Your task to perform on an android device: Add usb-c to the cart on ebay.com, then select checkout. Image 0: 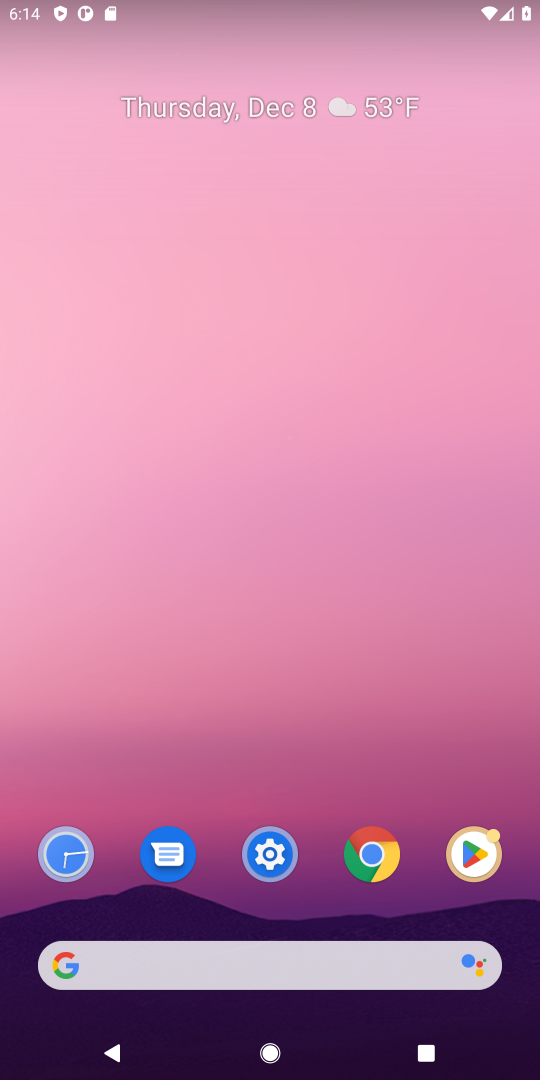
Step 0: press home button
Your task to perform on an android device: Add usb-c to the cart on ebay.com, then select checkout. Image 1: 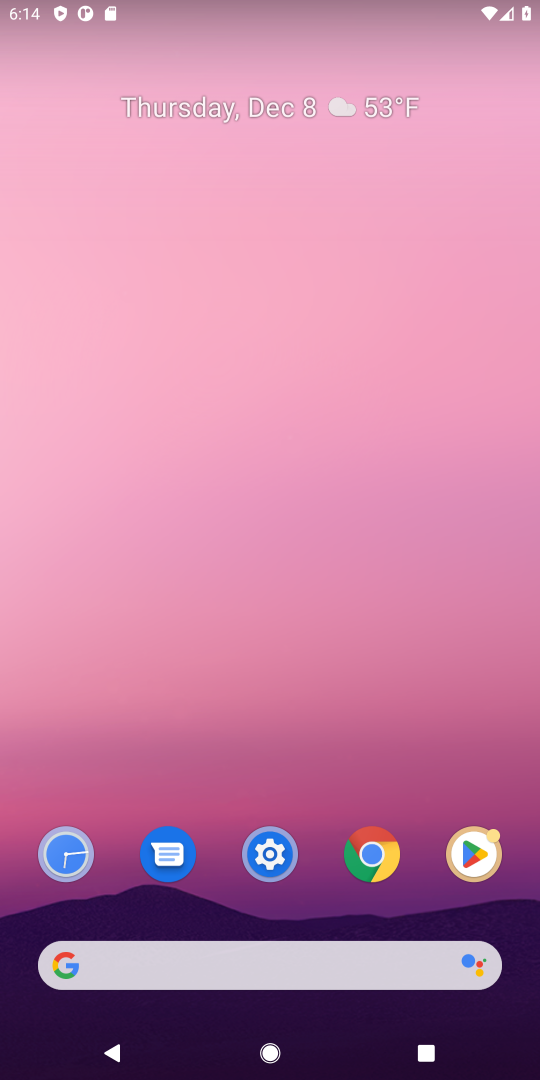
Step 1: click (123, 977)
Your task to perform on an android device: Add usb-c to the cart on ebay.com, then select checkout. Image 2: 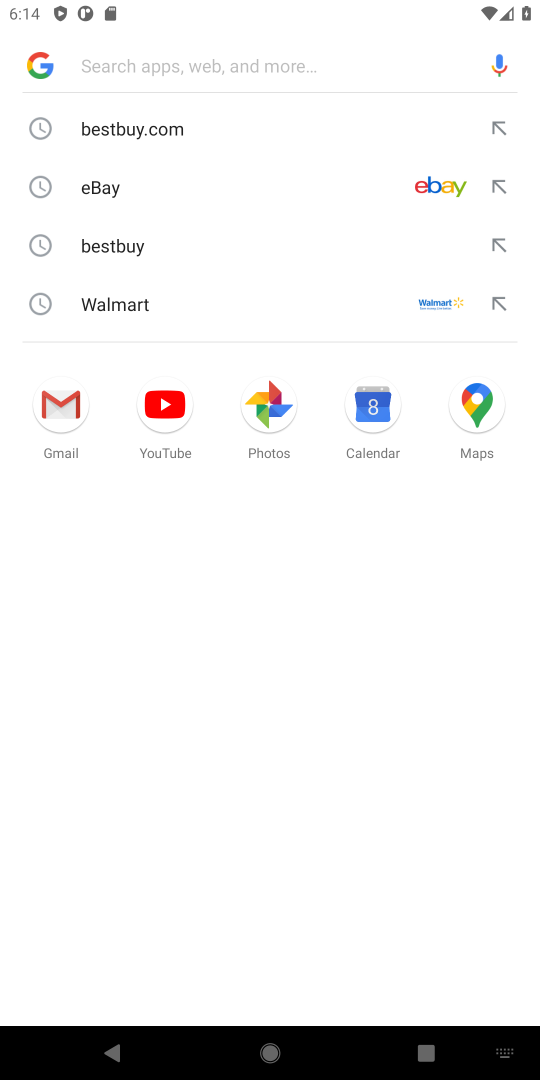
Step 2: press enter
Your task to perform on an android device: Add usb-c to the cart on ebay.com, then select checkout. Image 3: 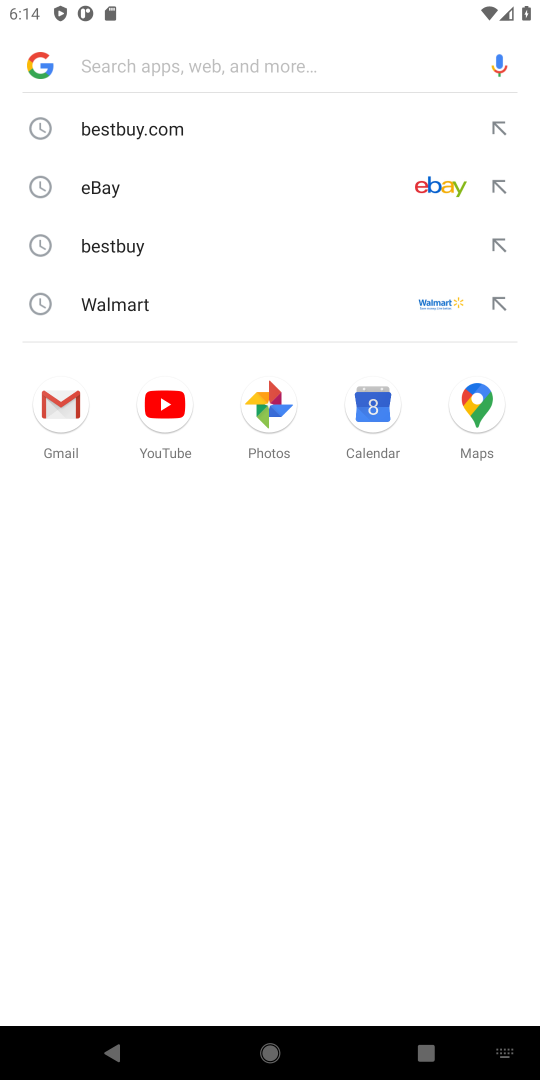
Step 3: type "ebay.com"
Your task to perform on an android device: Add usb-c to the cart on ebay.com, then select checkout. Image 4: 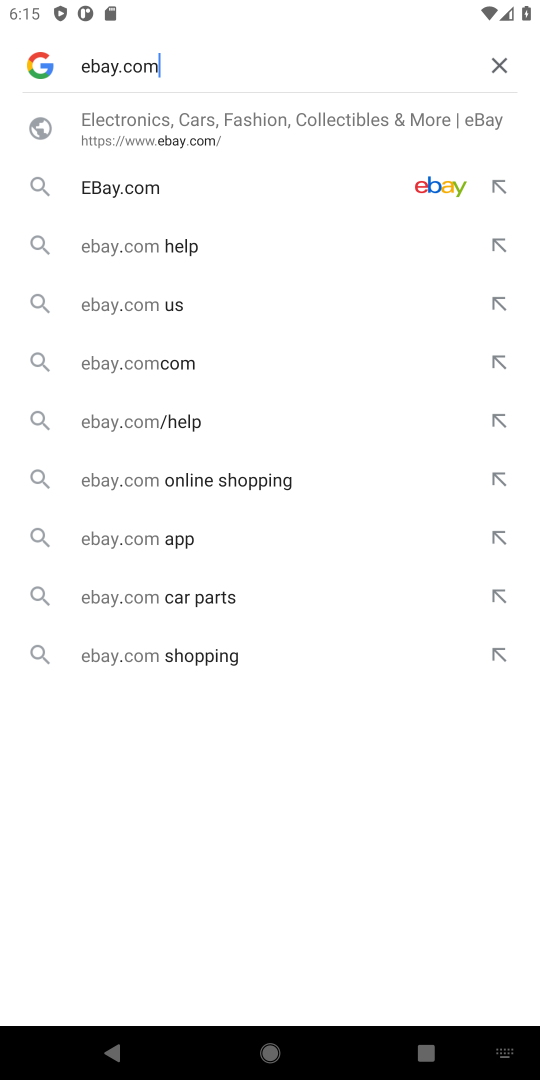
Step 4: press enter
Your task to perform on an android device: Add usb-c to the cart on ebay.com, then select checkout. Image 5: 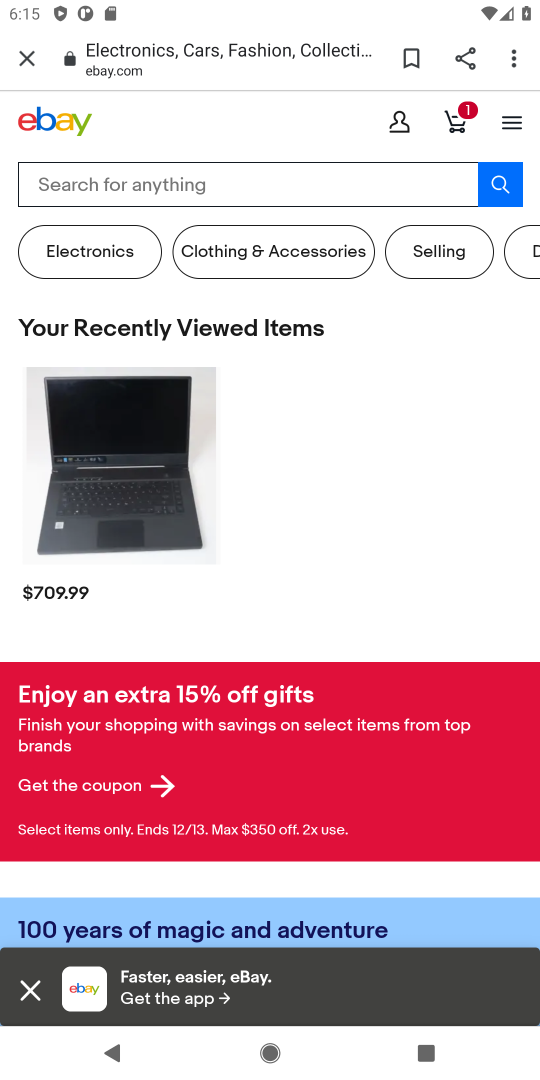
Step 5: click (237, 178)
Your task to perform on an android device: Add usb-c to the cart on ebay.com, then select checkout. Image 6: 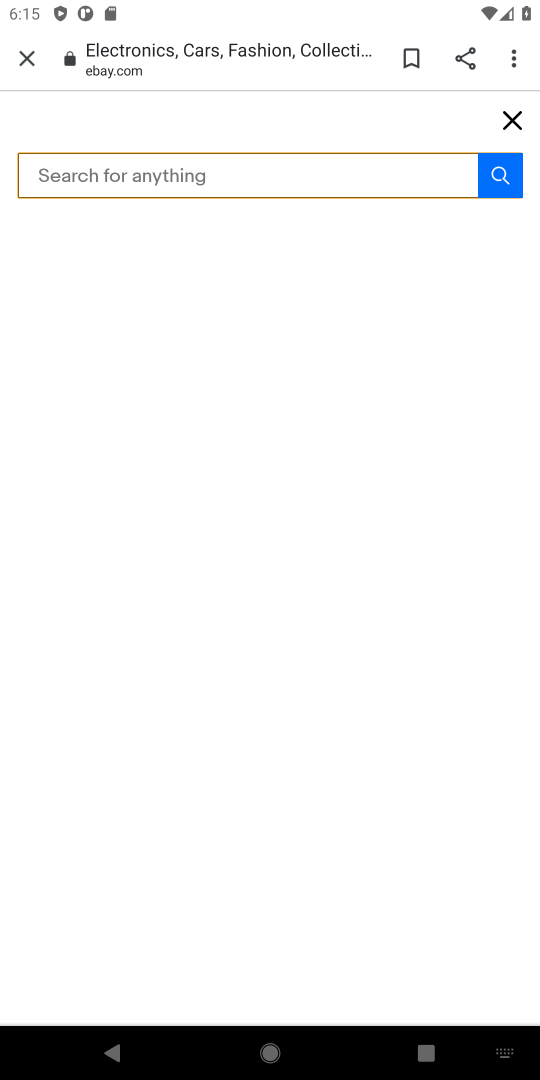
Step 6: type "usb-c"
Your task to perform on an android device: Add usb-c to the cart on ebay.com, then select checkout. Image 7: 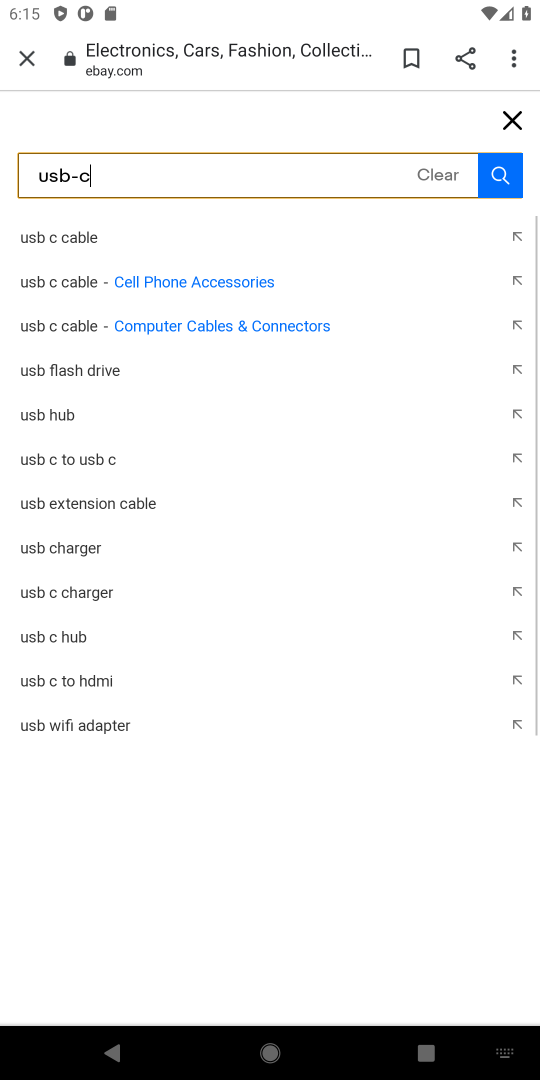
Step 7: press enter
Your task to perform on an android device: Add usb-c to the cart on ebay.com, then select checkout. Image 8: 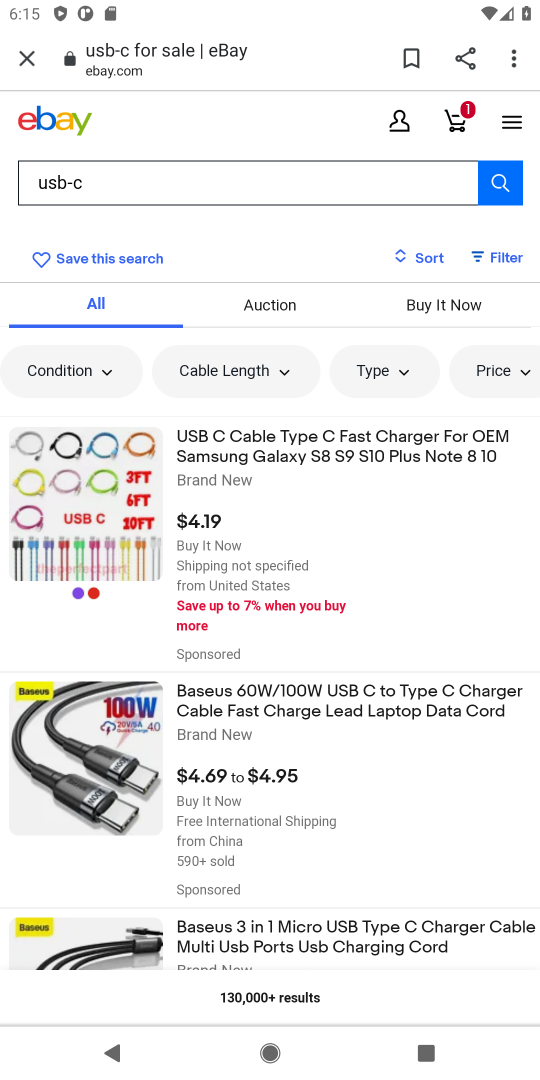
Step 8: click (244, 502)
Your task to perform on an android device: Add usb-c to the cart on ebay.com, then select checkout. Image 9: 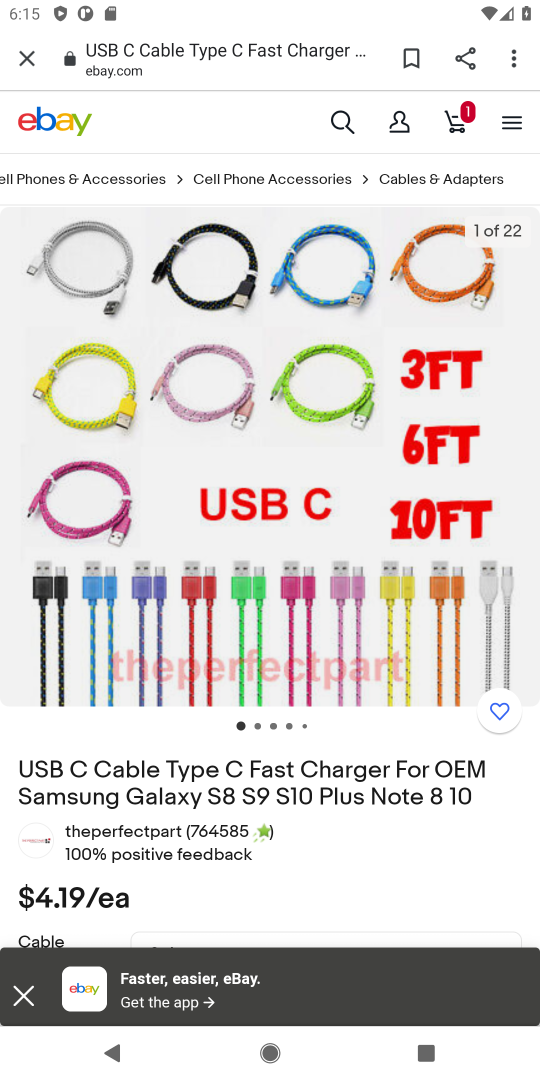
Step 9: drag from (343, 883) to (332, 385)
Your task to perform on an android device: Add usb-c to the cart on ebay.com, then select checkout. Image 10: 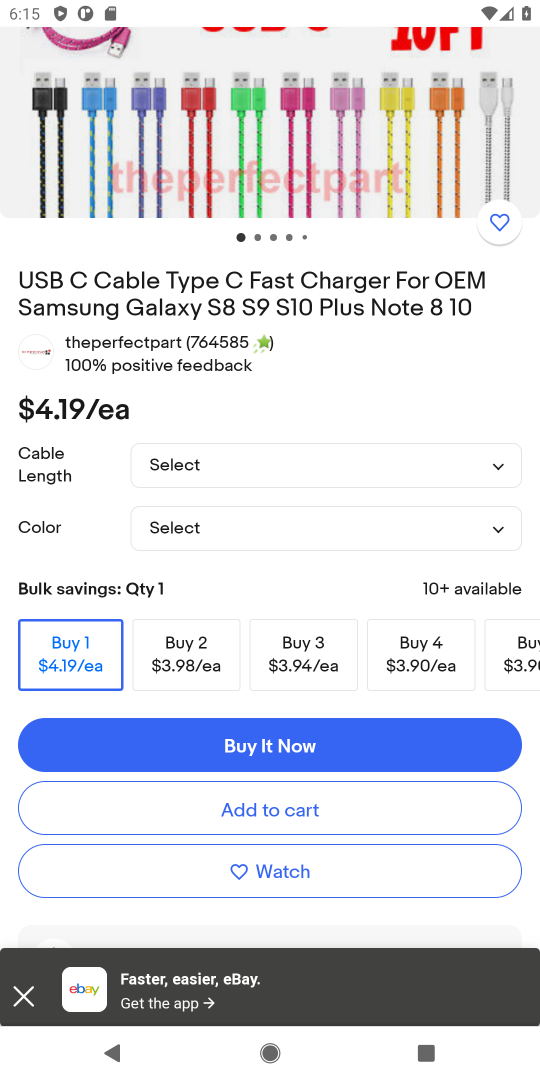
Step 10: click (269, 809)
Your task to perform on an android device: Add usb-c to the cart on ebay.com, then select checkout. Image 11: 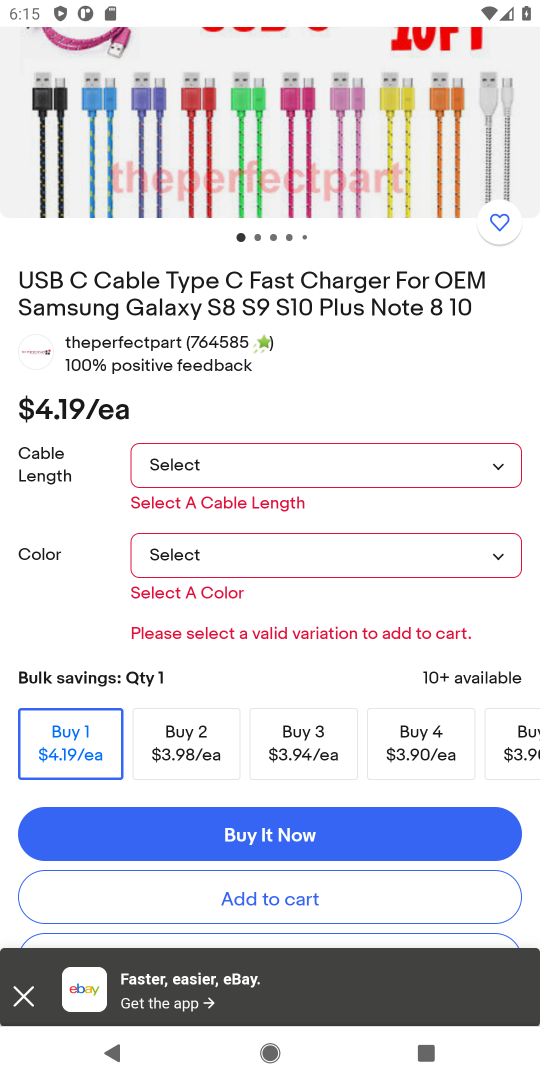
Step 11: click (499, 464)
Your task to perform on an android device: Add usb-c to the cart on ebay.com, then select checkout. Image 12: 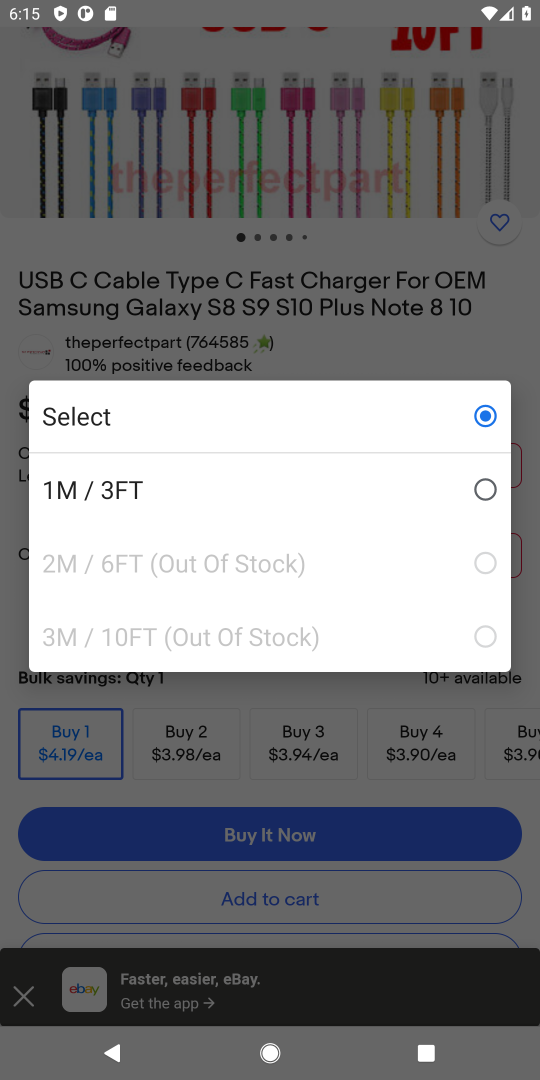
Step 12: click (482, 492)
Your task to perform on an android device: Add usb-c to the cart on ebay.com, then select checkout. Image 13: 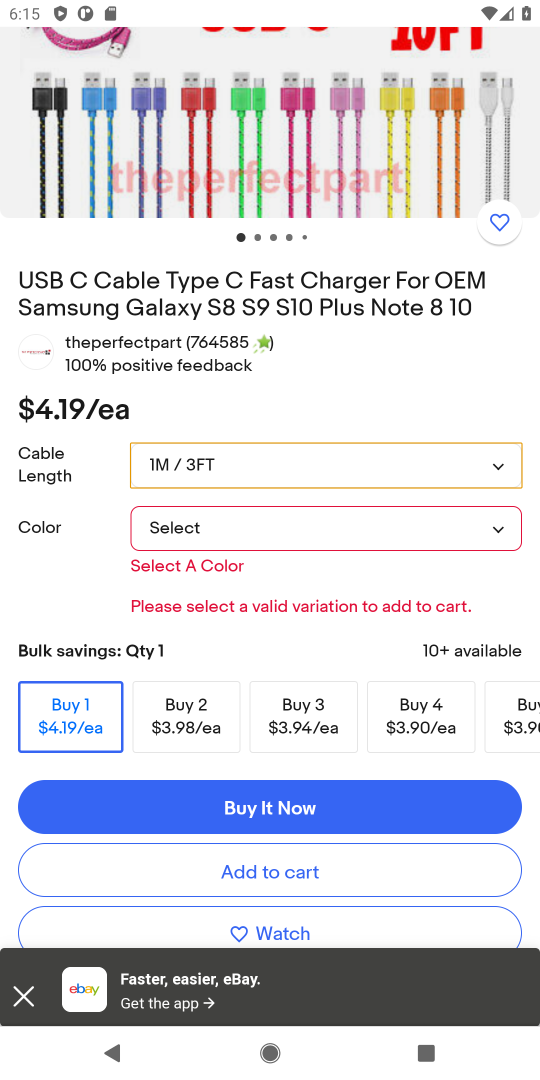
Step 13: click (498, 523)
Your task to perform on an android device: Add usb-c to the cart on ebay.com, then select checkout. Image 14: 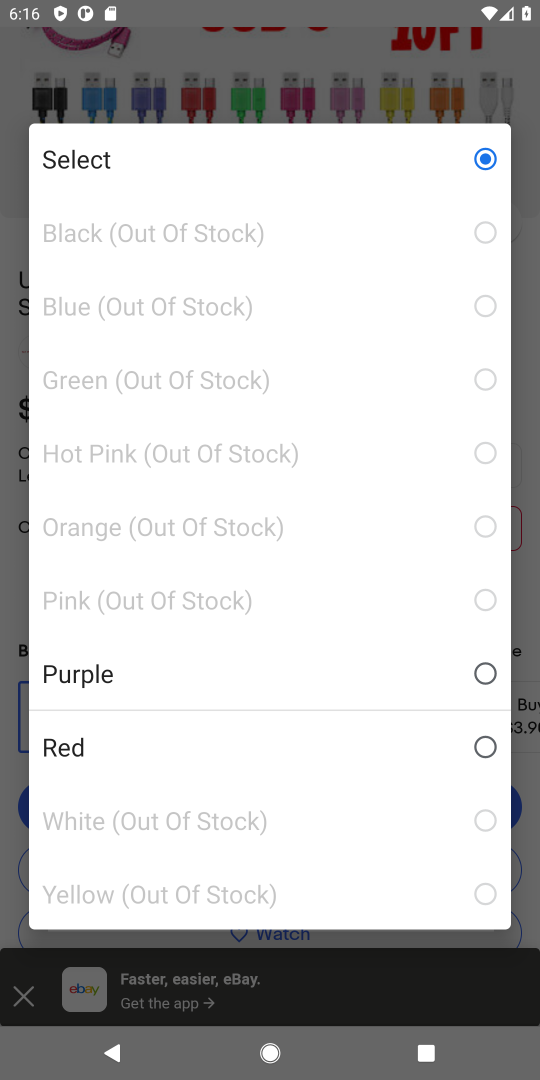
Step 14: click (479, 747)
Your task to perform on an android device: Add usb-c to the cart on ebay.com, then select checkout. Image 15: 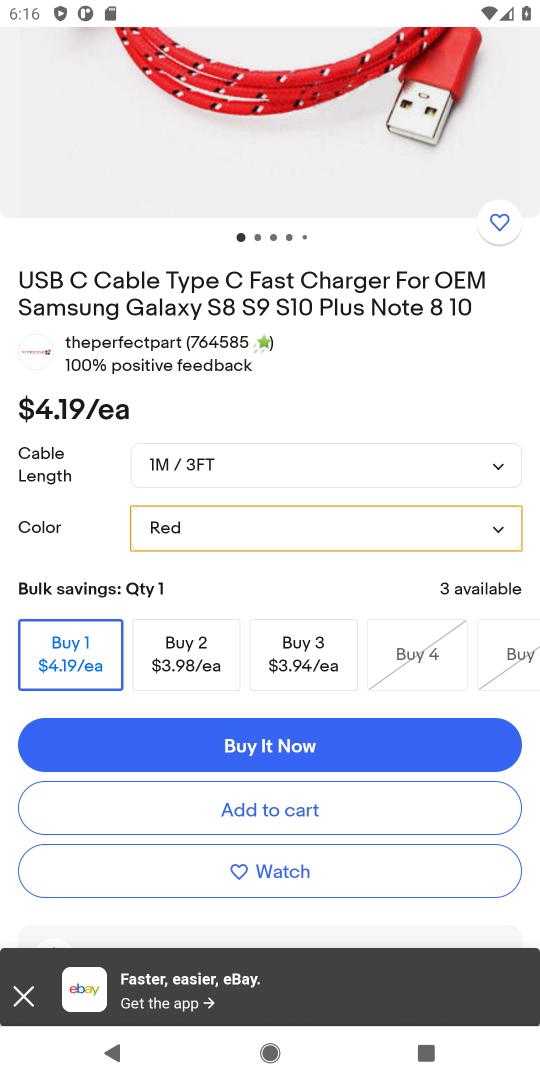
Step 15: click (276, 811)
Your task to perform on an android device: Add usb-c to the cart on ebay.com, then select checkout. Image 16: 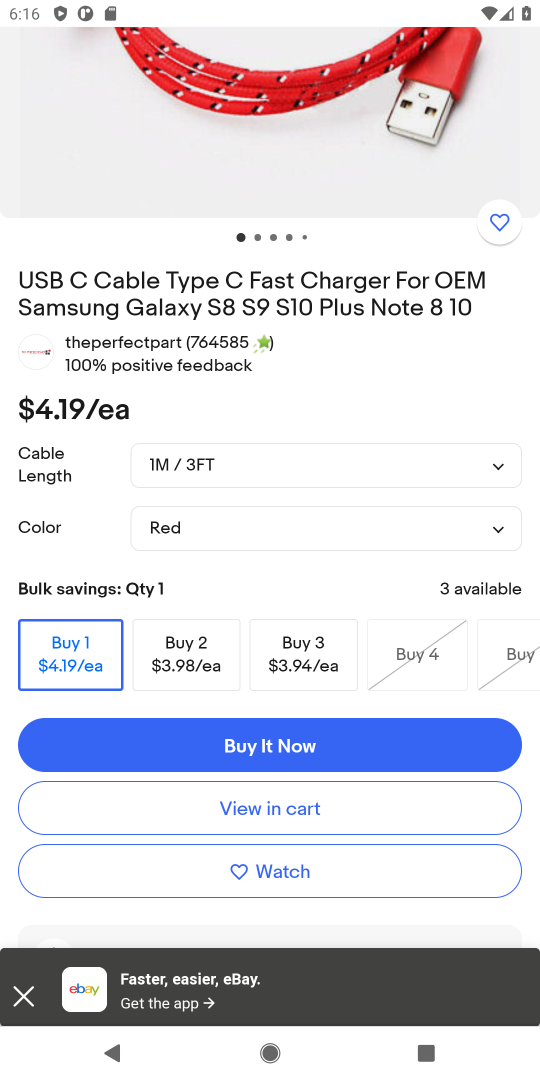
Step 16: task complete